Your task to perform on an android device: Search for Italian restaurants on Maps Image 0: 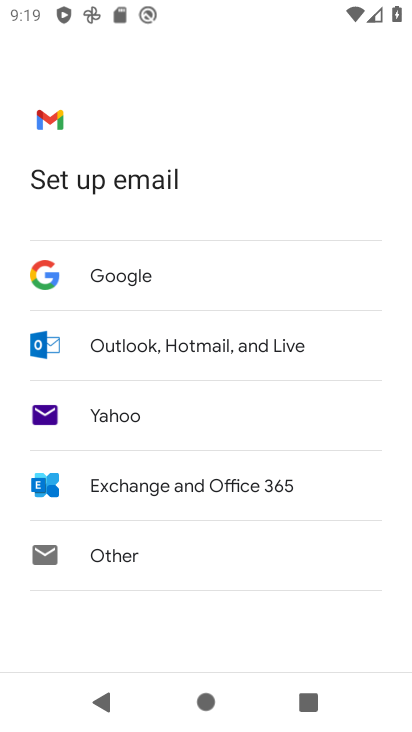
Step 0: press home button
Your task to perform on an android device: Search for Italian restaurants on Maps Image 1: 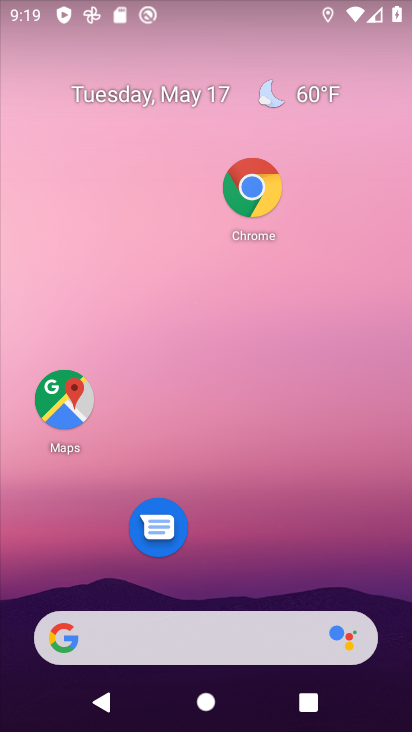
Step 1: click (41, 408)
Your task to perform on an android device: Search for Italian restaurants on Maps Image 2: 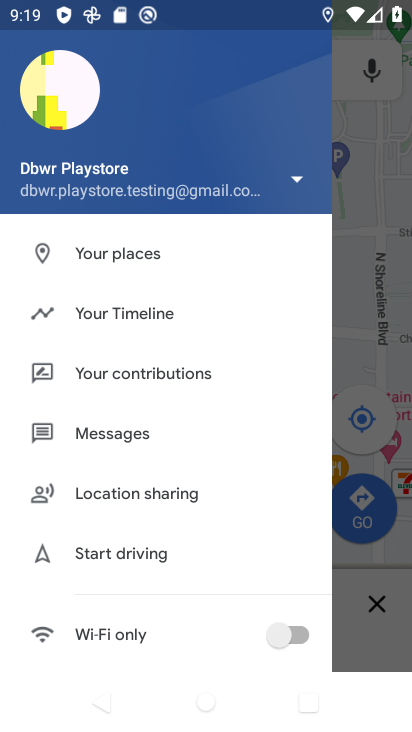
Step 2: click (388, 345)
Your task to perform on an android device: Search for Italian restaurants on Maps Image 3: 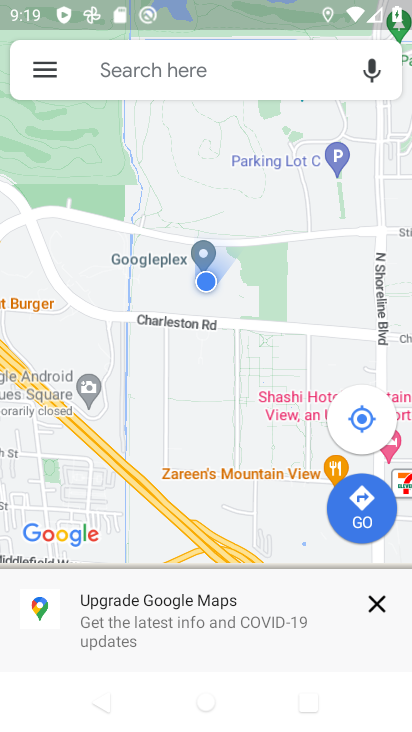
Step 3: click (235, 76)
Your task to perform on an android device: Search for Italian restaurants on Maps Image 4: 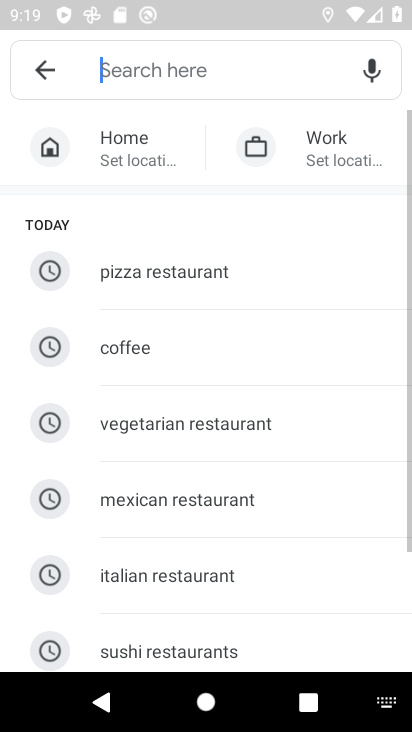
Step 4: click (232, 563)
Your task to perform on an android device: Search for Italian restaurants on Maps Image 5: 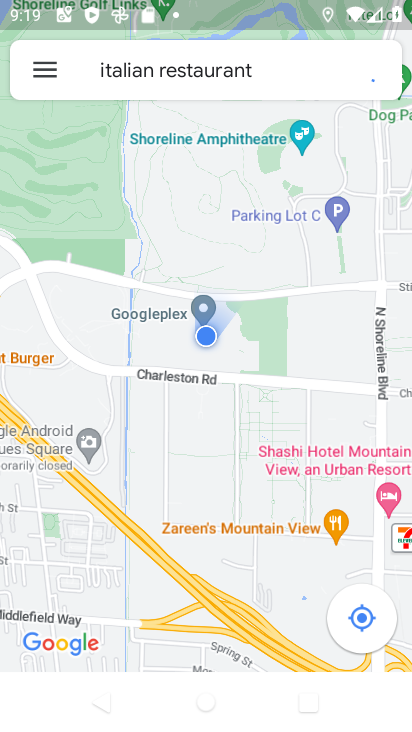
Step 5: task complete